Your task to perform on an android device: turn pop-ups off in chrome Image 0: 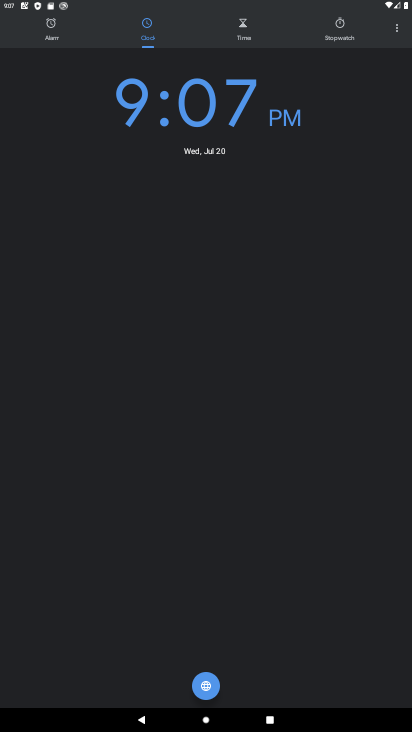
Step 0: press home button
Your task to perform on an android device: turn pop-ups off in chrome Image 1: 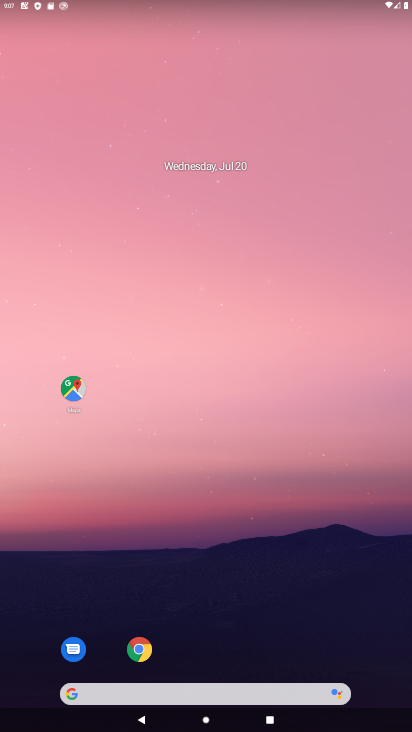
Step 1: click (153, 655)
Your task to perform on an android device: turn pop-ups off in chrome Image 2: 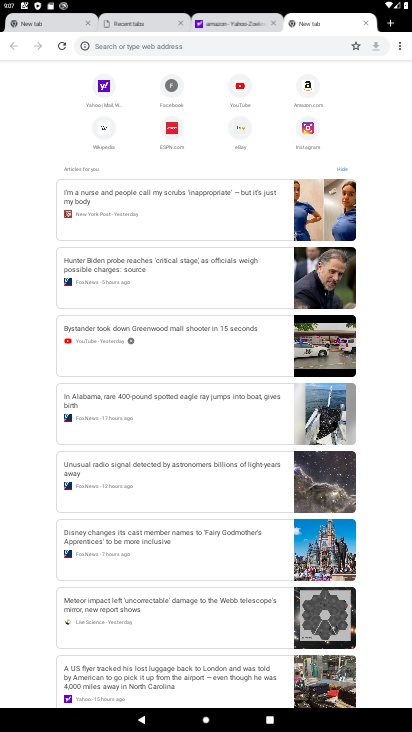
Step 2: task complete